Your task to perform on an android device: Go to Google Image 0: 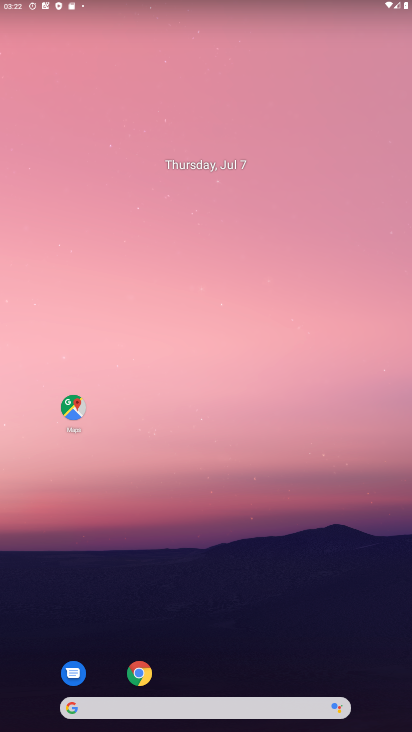
Step 0: drag from (212, 672) to (236, 285)
Your task to perform on an android device: Go to Google Image 1: 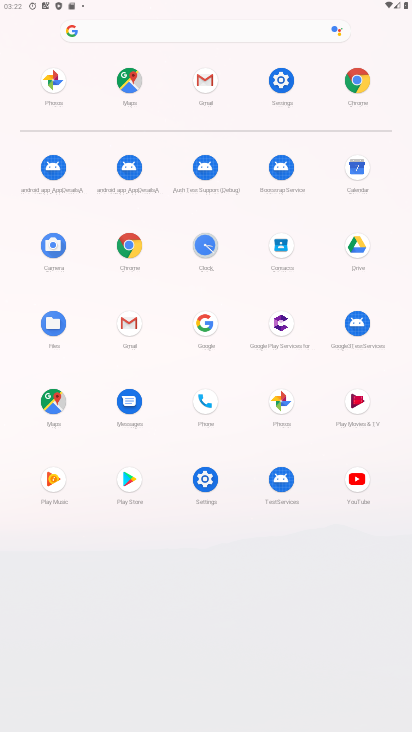
Step 1: click (207, 328)
Your task to perform on an android device: Go to Google Image 2: 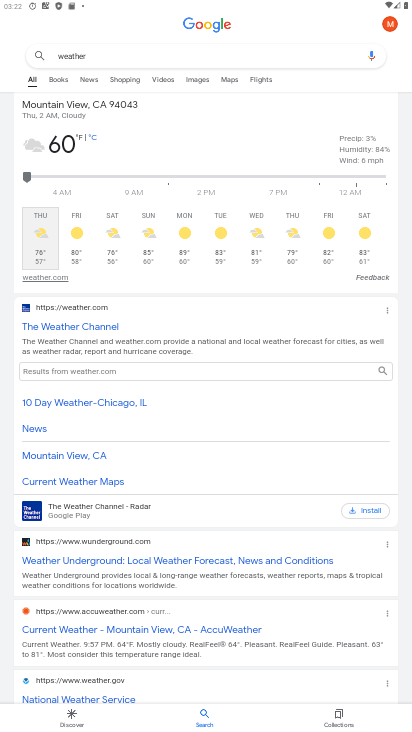
Step 2: task complete